Your task to perform on an android device: Open location settings Image 0: 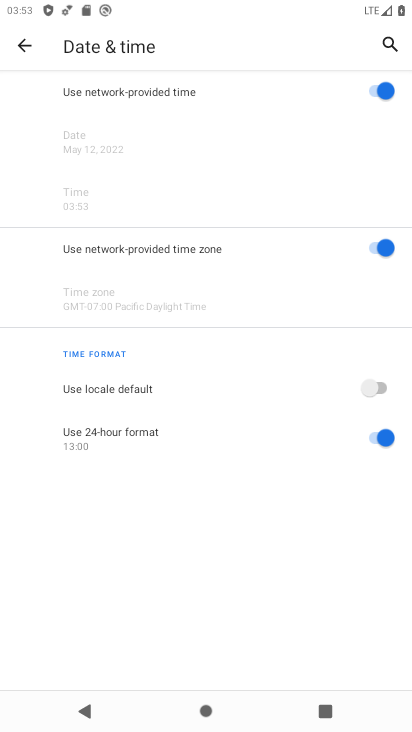
Step 0: press home button
Your task to perform on an android device: Open location settings Image 1: 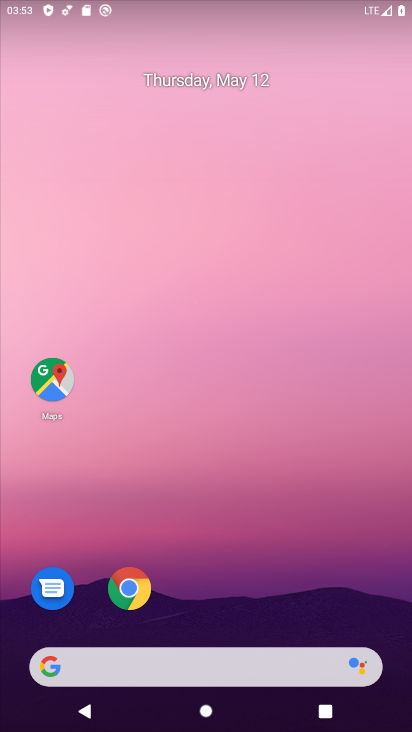
Step 1: drag from (181, 632) to (283, 247)
Your task to perform on an android device: Open location settings Image 2: 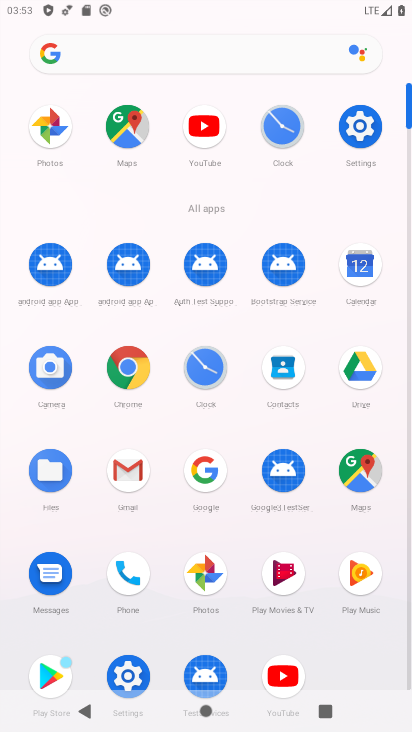
Step 2: click (130, 662)
Your task to perform on an android device: Open location settings Image 3: 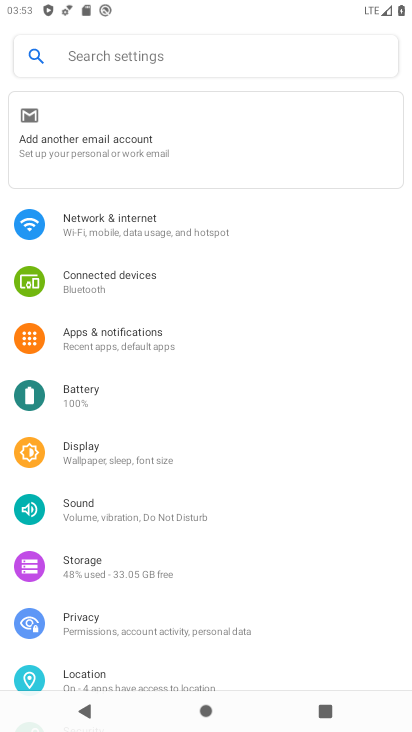
Step 3: click (115, 667)
Your task to perform on an android device: Open location settings Image 4: 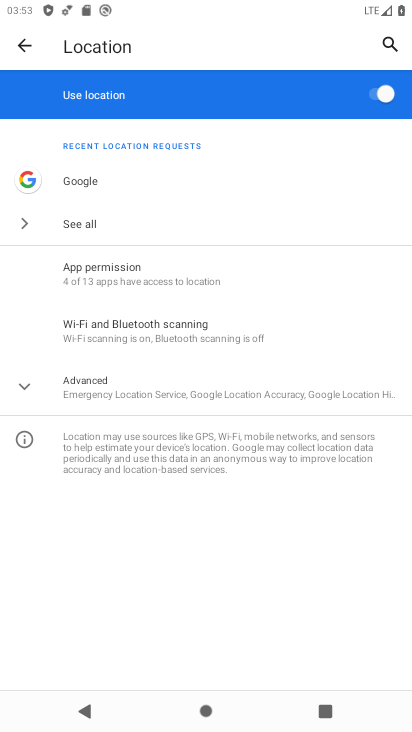
Step 4: click (143, 397)
Your task to perform on an android device: Open location settings Image 5: 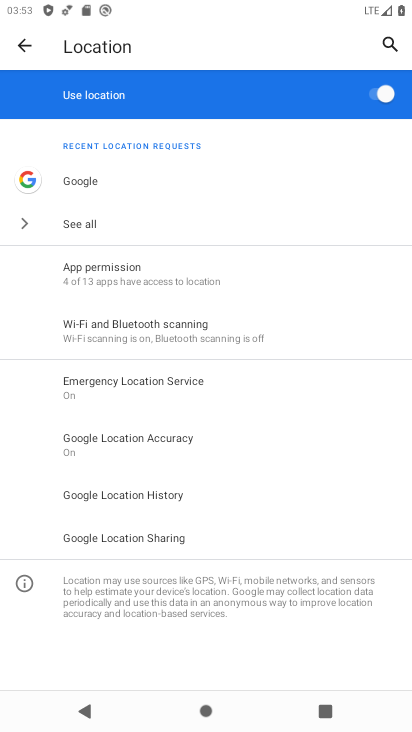
Step 5: task complete